Your task to perform on an android device: check storage Image 0: 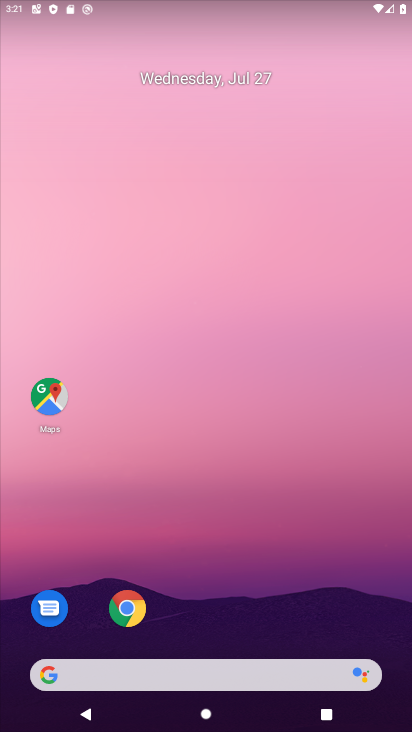
Step 0: drag from (399, 702) to (345, 158)
Your task to perform on an android device: check storage Image 1: 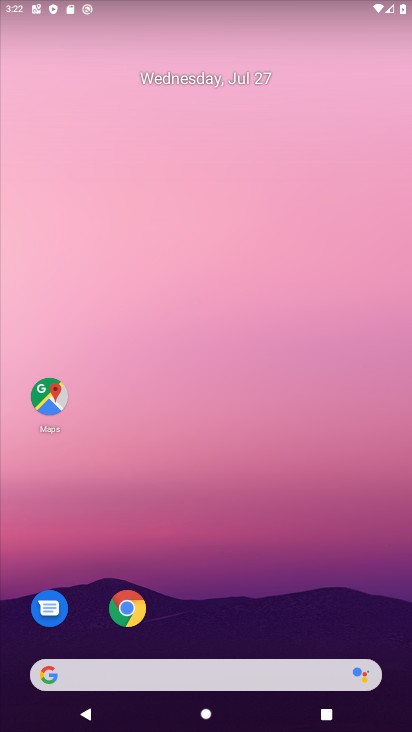
Step 1: drag from (391, 713) to (355, 167)
Your task to perform on an android device: check storage Image 2: 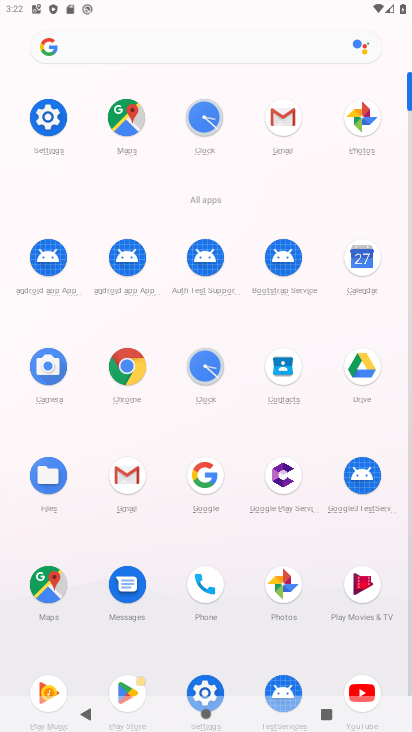
Step 2: click (194, 680)
Your task to perform on an android device: check storage Image 3: 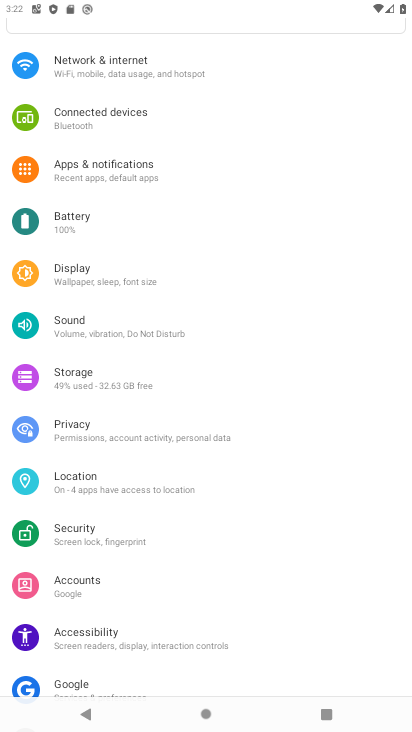
Step 3: click (77, 379)
Your task to perform on an android device: check storage Image 4: 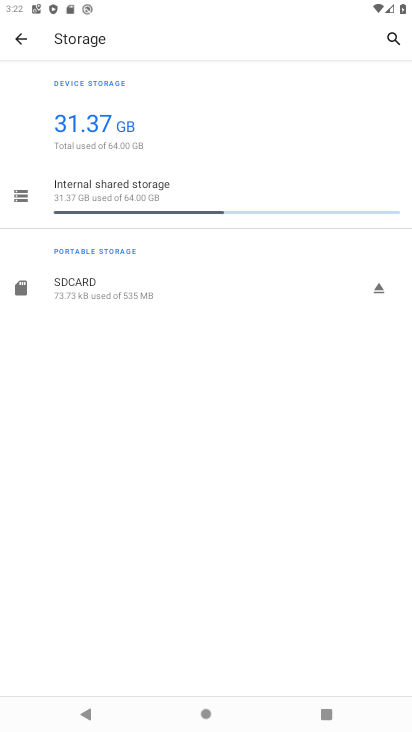
Step 4: task complete